Your task to perform on an android device: change alarm snooze length Image 0: 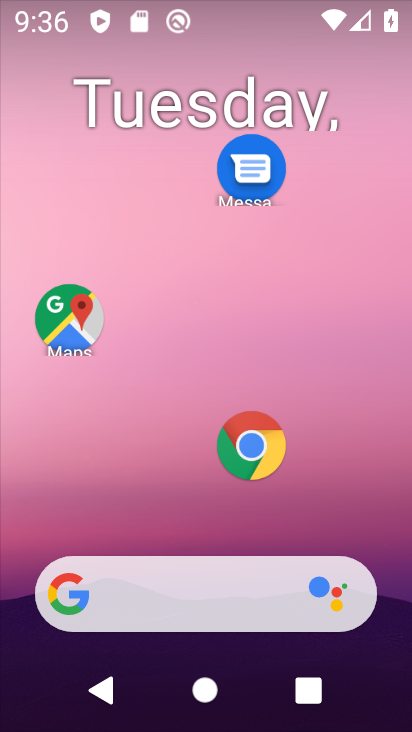
Step 0: click (283, 27)
Your task to perform on an android device: change alarm snooze length Image 1: 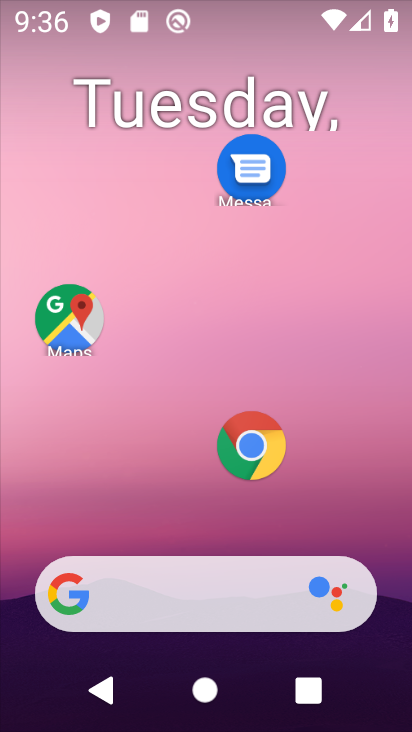
Step 1: drag from (168, 455) to (194, 138)
Your task to perform on an android device: change alarm snooze length Image 2: 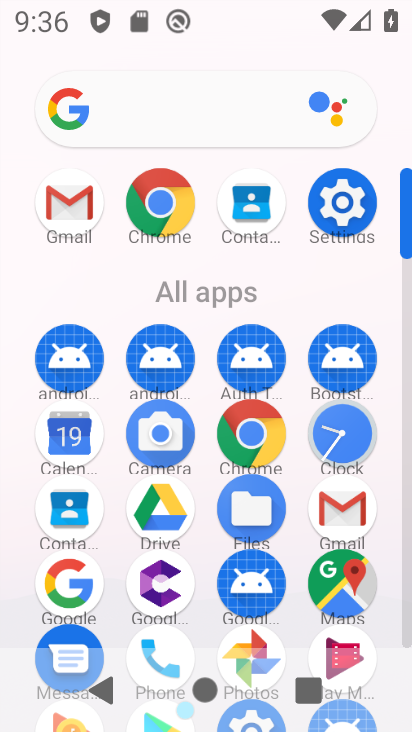
Step 2: click (360, 425)
Your task to perform on an android device: change alarm snooze length Image 3: 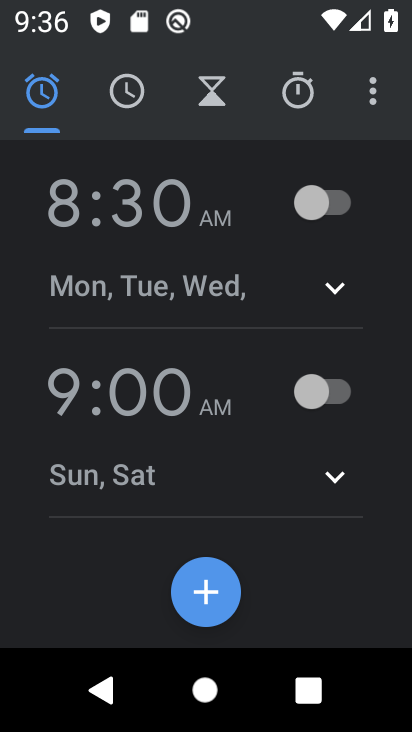
Step 3: click (371, 87)
Your task to perform on an android device: change alarm snooze length Image 4: 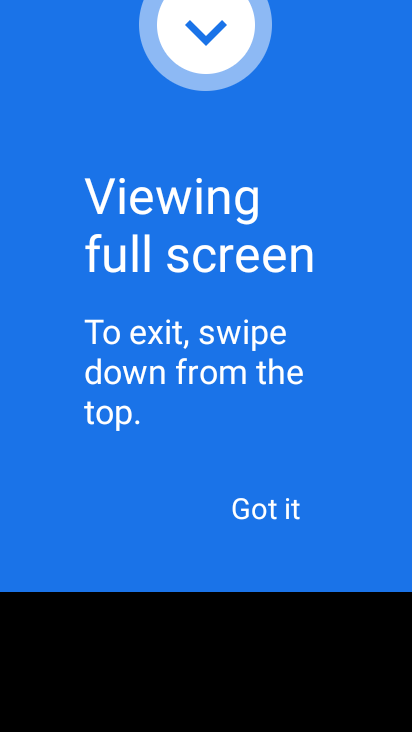
Step 4: click (272, 510)
Your task to perform on an android device: change alarm snooze length Image 5: 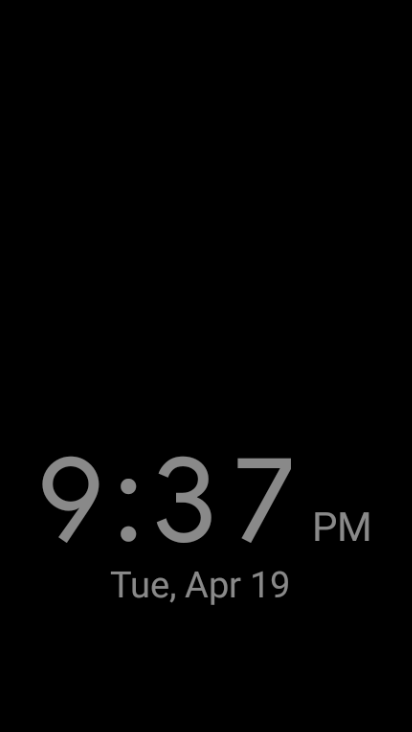
Step 5: press back button
Your task to perform on an android device: change alarm snooze length Image 6: 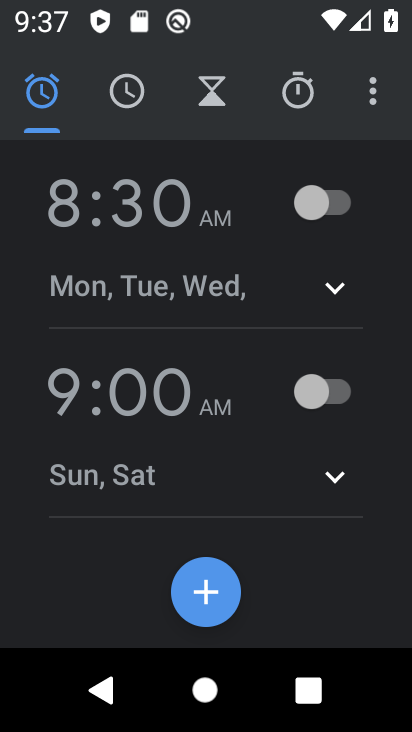
Step 6: click (360, 75)
Your task to perform on an android device: change alarm snooze length Image 7: 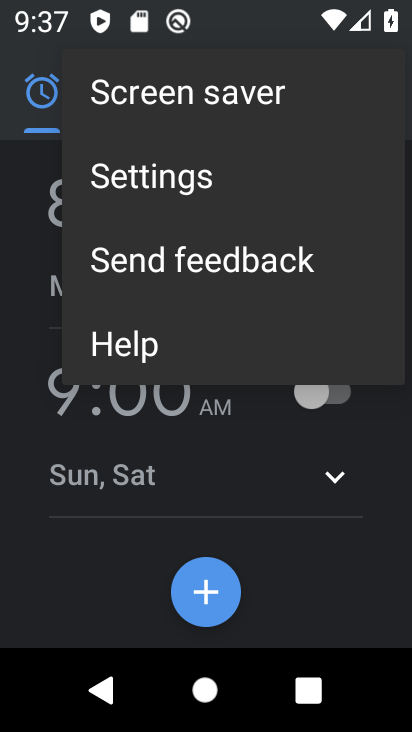
Step 7: click (192, 201)
Your task to perform on an android device: change alarm snooze length Image 8: 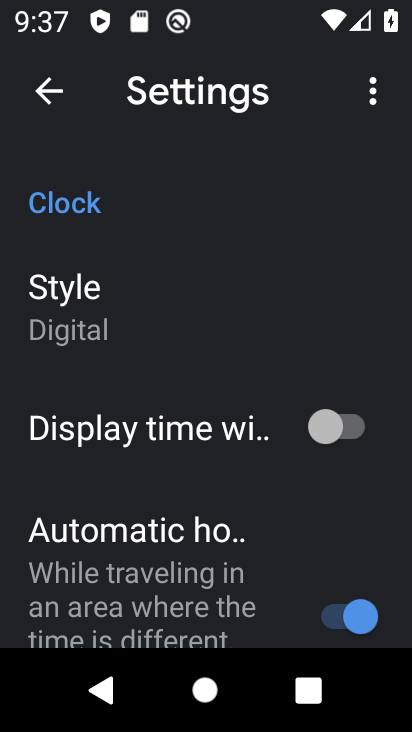
Step 8: drag from (174, 452) to (270, 36)
Your task to perform on an android device: change alarm snooze length Image 9: 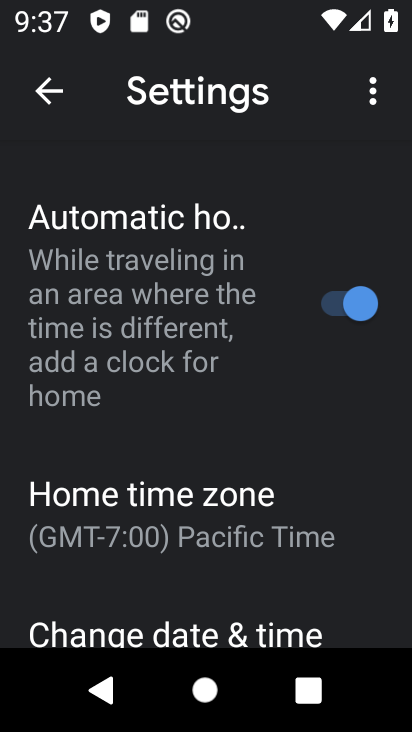
Step 9: drag from (207, 543) to (242, 98)
Your task to perform on an android device: change alarm snooze length Image 10: 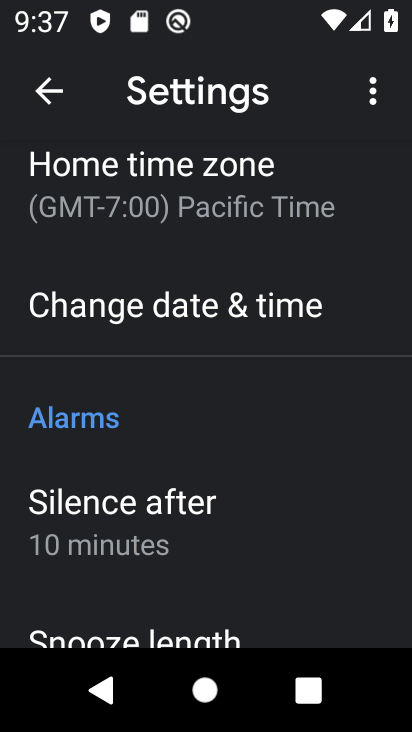
Step 10: drag from (205, 511) to (295, 136)
Your task to perform on an android device: change alarm snooze length Image 11: 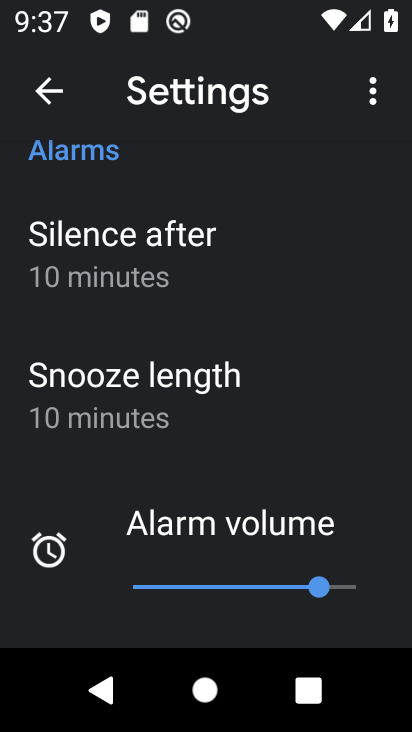
Step 11: click (133, 384)
Your task to perform on an android device: change alarm snooze length Image 12: 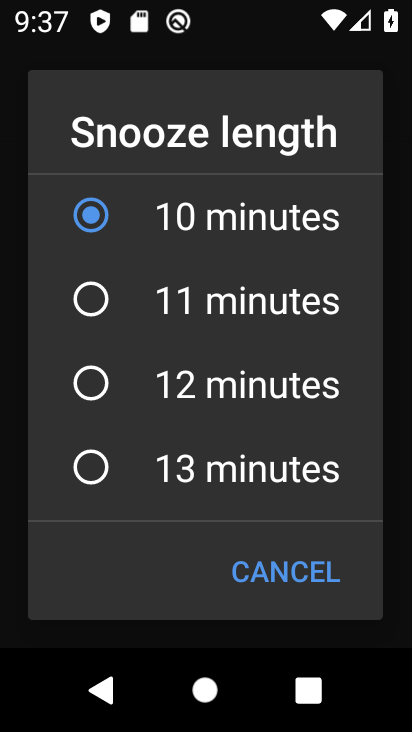
Step 12: click (98, 301)
Your task to perform on an android device: change alarm snooze length Image 13: 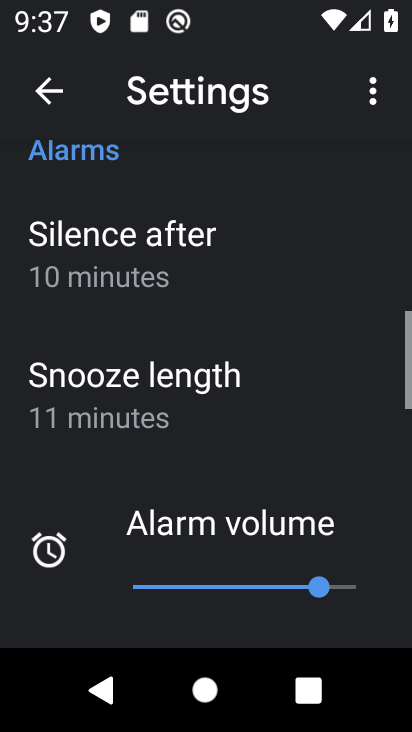
Step 13: task complete